Your task to perform on an android device: allow notifications from all sites in the chrome app Image 0: 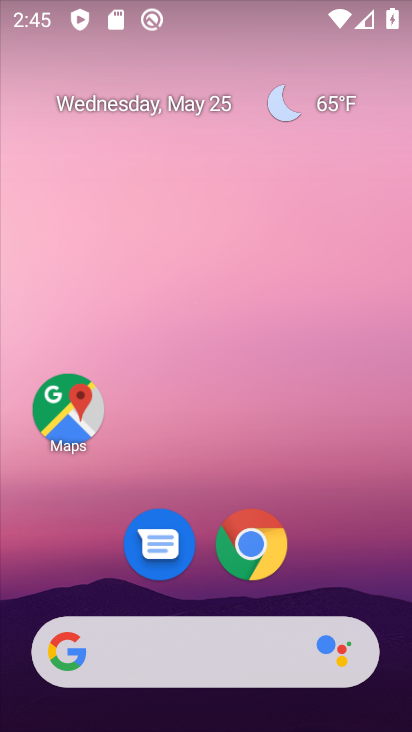
Step 0: click (268, 544)
Your task to perform on an android device: allow notifications from all sites in the chrome app Image 1: 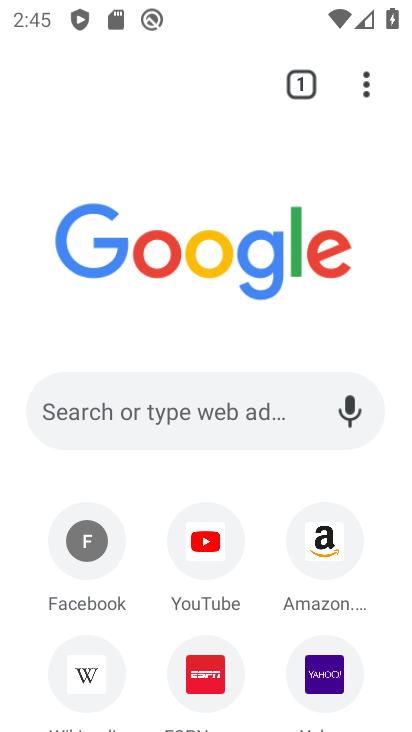
Step 1: click (373, 101)
Your task to perform on an android device: allow notifications from all sites in the chrome app Image 2: 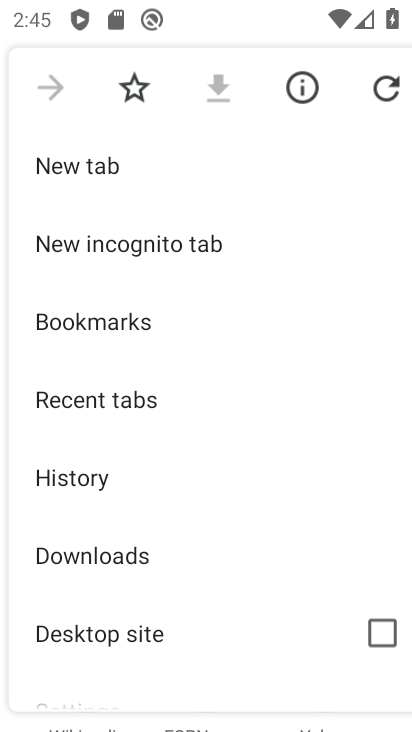
Step 2: drag from (187, 669) to (175, 201)
Your task to perform on an android device: allow notifications from all sites in the chrome app Image 3: 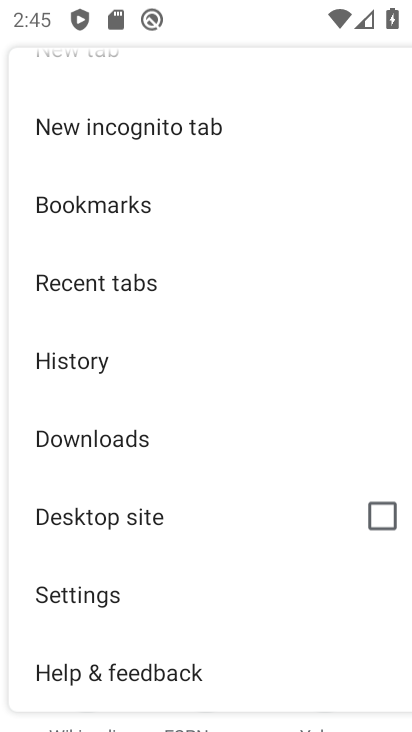
Step 3: click (137, 573)
Your task to perform on an android device: allow notifications from all sites in the chrome app Image 4: 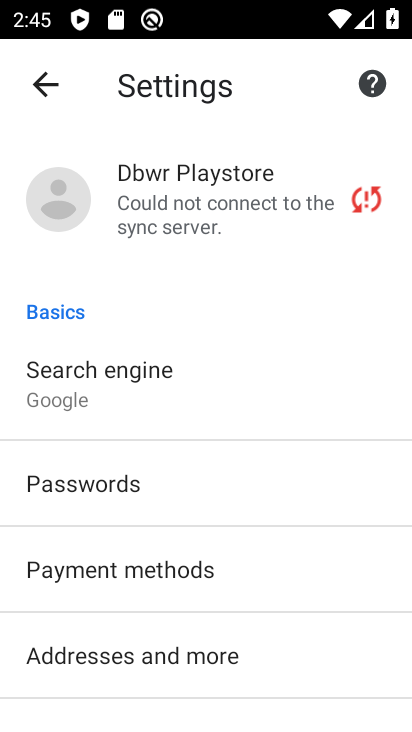
Step 4: drag from (169, 620) to (138, 247)
Your task to perform on an android device: allow notifications from all sites in the chrome app Image 5: 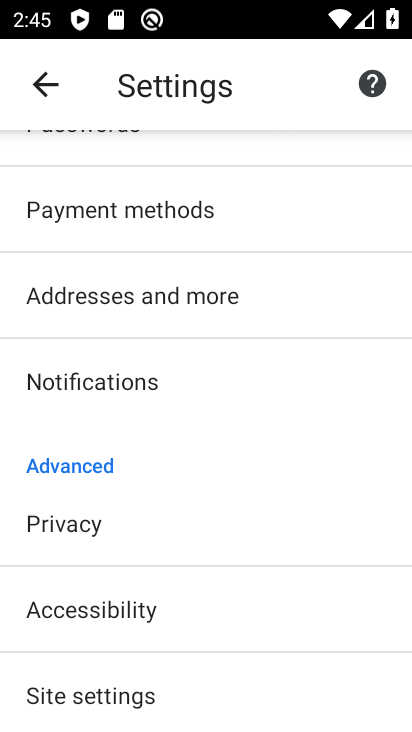
Step 5: click (175, 695)
Your task to perform on an android device: allow notifications from all sites in the chrome app Image 6: 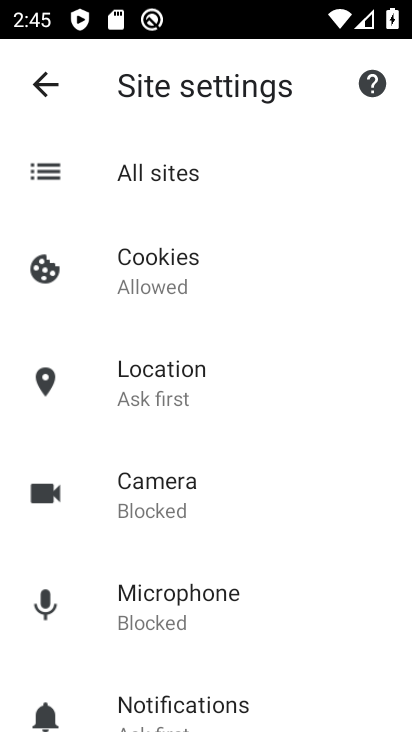
Step 6: click (258, 730)
Your task to perform on an android device: allow notifications from all sites in the chrome app Image 7: 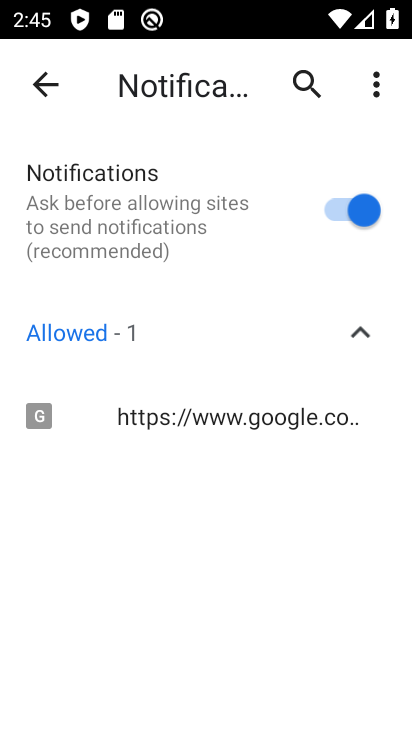
Step 7: task complete